Your task to perform on an android device: Open Google Image 0: 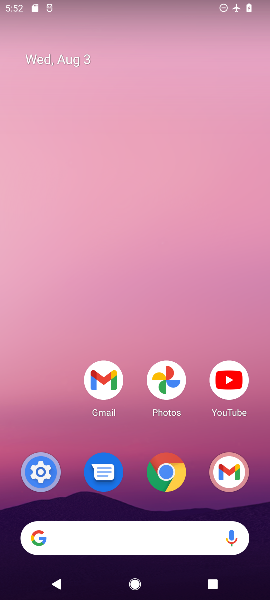
Step 0: drag from (204, 441) to (116, 9)
Your task to perform on an android device: Open Google Image 1: 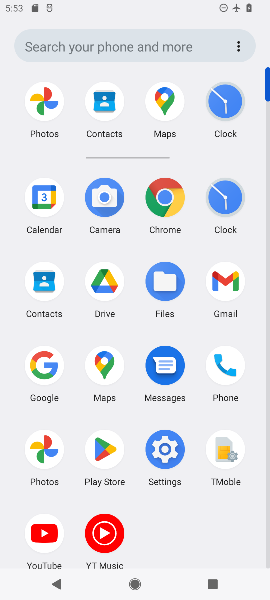
Step 1: click (40, 377)
Your task to perform on an android device: Open Google Image 2: 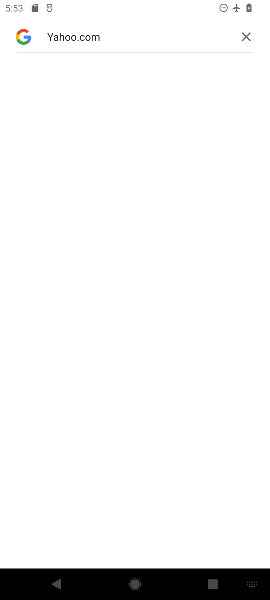
Step 2: click (250, 33)
Your task to perform on an android device: Open Google Image 3: 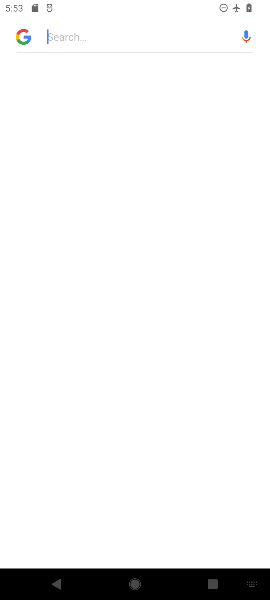
Step 3: task complete